Your task to perform on an android device: change the clock display to digital Image 0: 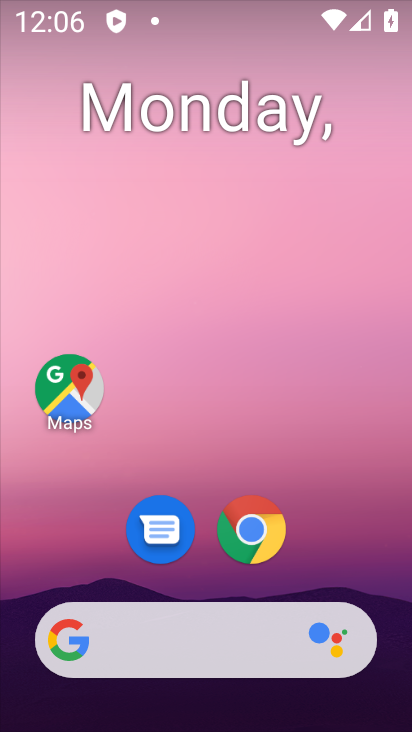
Step 0: drag from (188, 656) to (160, 210)
Your task to perform on an android device: change the clock display to digital Image 1: 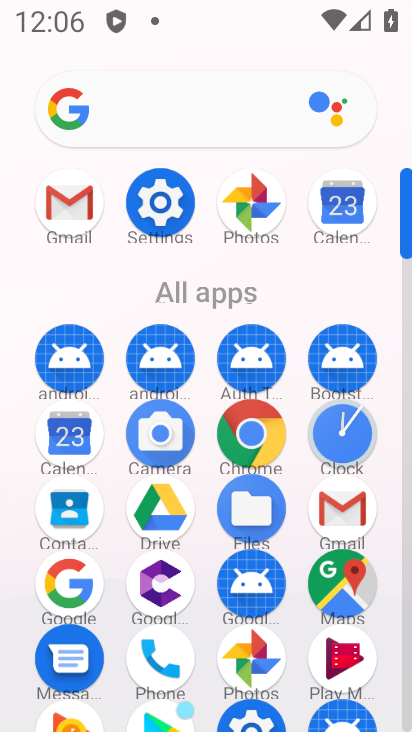
Step 1: click (334, 434)
Your task to perform on an android device: change the clock display to digital Image 2: 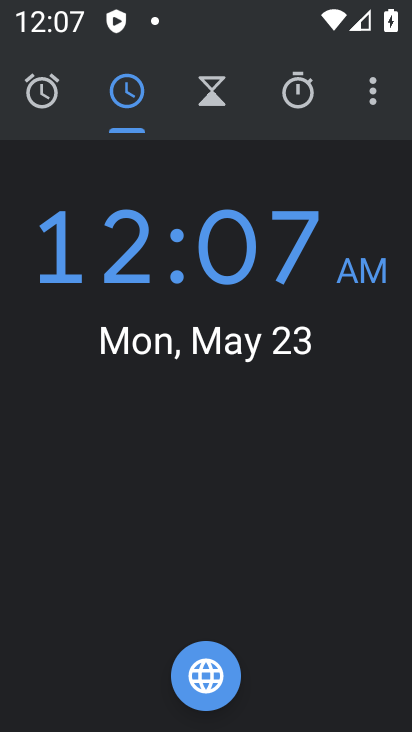
Step 2: click (374, 99)
Your task to perform on an android device: change the clock display to digital Image 3: 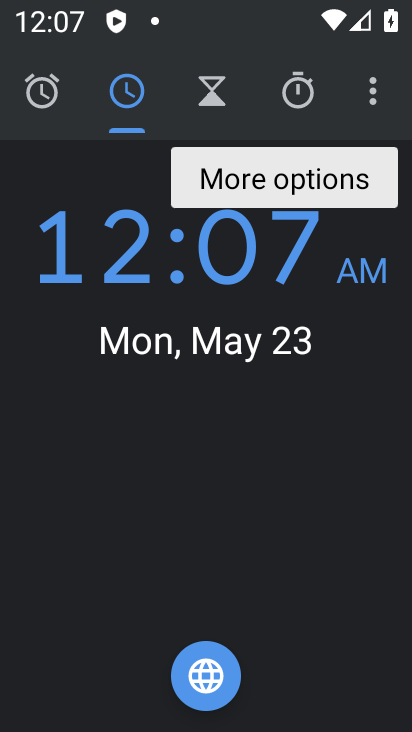
Step 3: click (374, 99)
Your task to perform on an android device: change the clock display to digital Image 4: 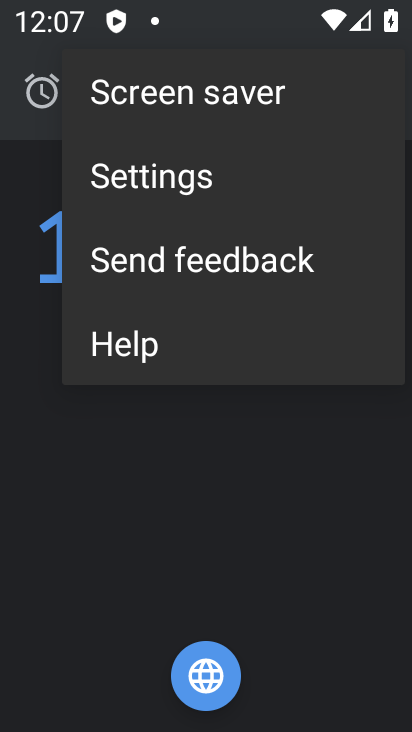
Step 4: click (296, 159)
Your task to perform on an android device: change the clock display to digital Image 5: 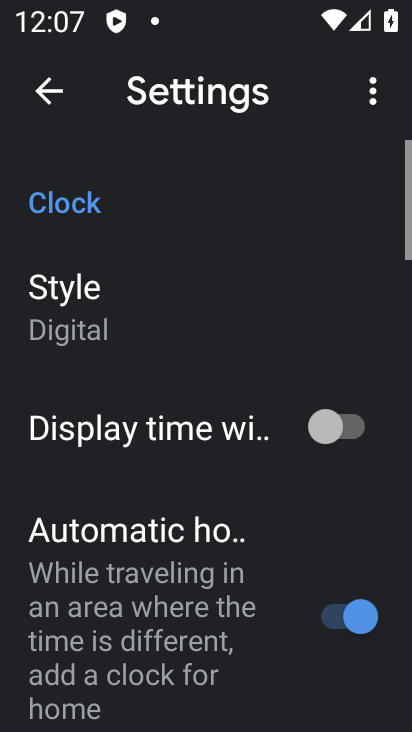
Step 5: click (173, 295)
Your task to perform on an android device: change the clock display to digital Image 6: 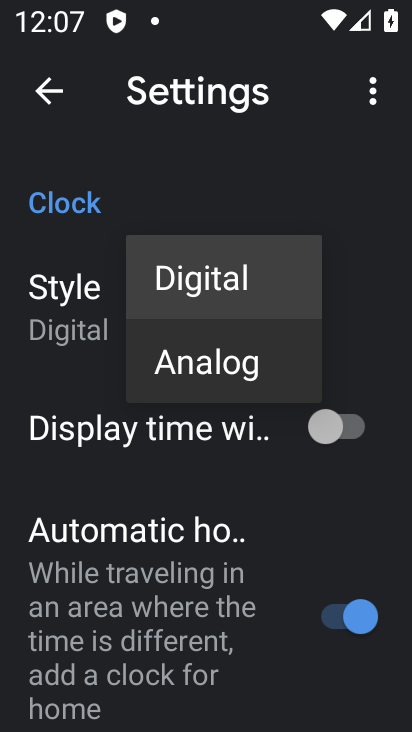
Step 6: click (215, 287)
Your task to perform on an android device: change the clock display to digital Image 7: 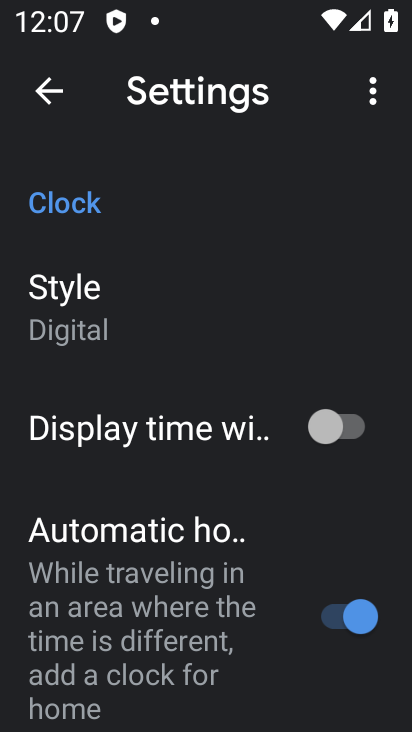
Step 7: task complete